Your task to perform on an android device: Open Yahoo.com Image 0: 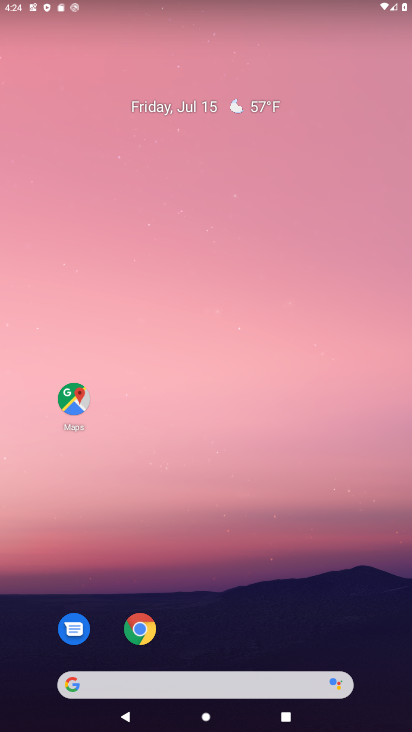
Step 0: press home button
Your task to perform on an android device: Open Yahoo.com Image 1: 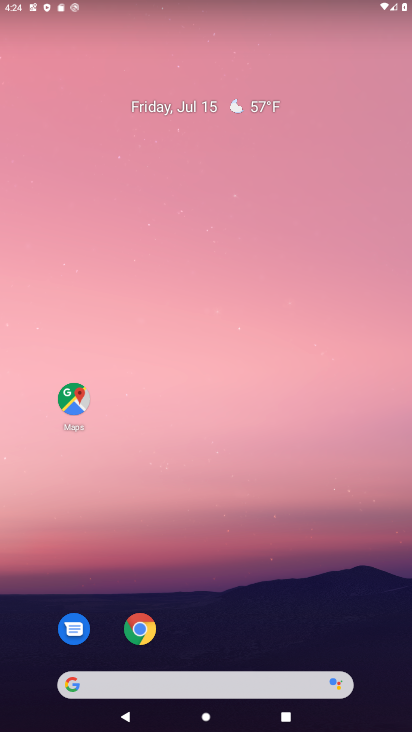
Step 1: click (67, 685)
Your task to perform on an android device: Open Yahoo.com Image 2: 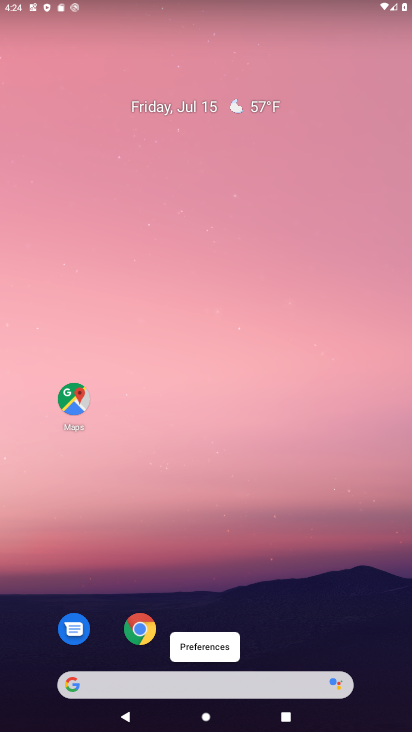
Step 2: click (67, 685)
Your task to perform on an android device: Open Yahoo.com Image 3: 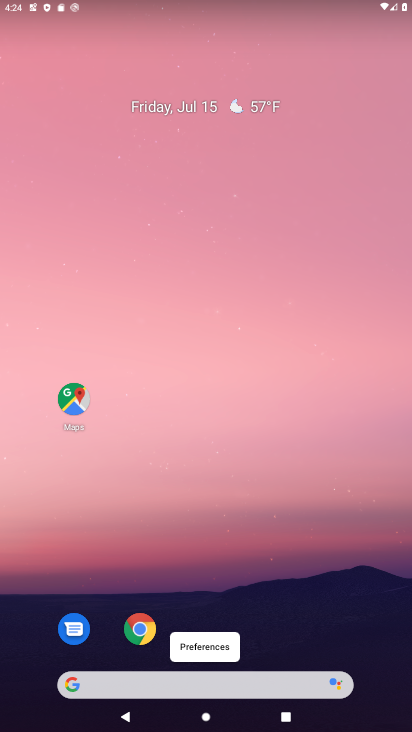
Step 3: click (67, 685)
Your task to perform on an android device: Open Yahoo.com Image 4: 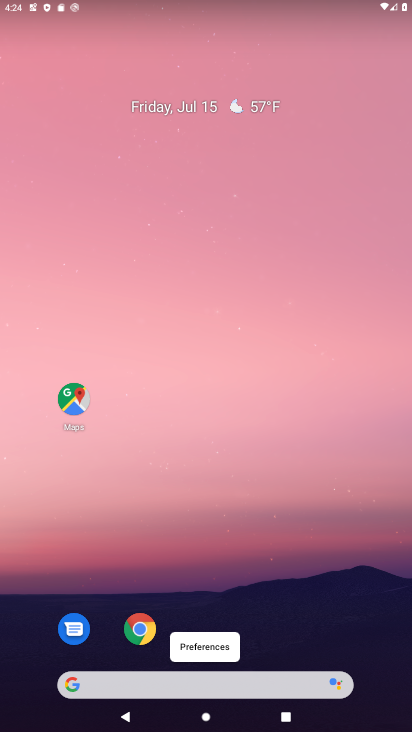
Step 4: click (70, 684)
Your task to perform on an android device: Open Yahoo.com Image 5: 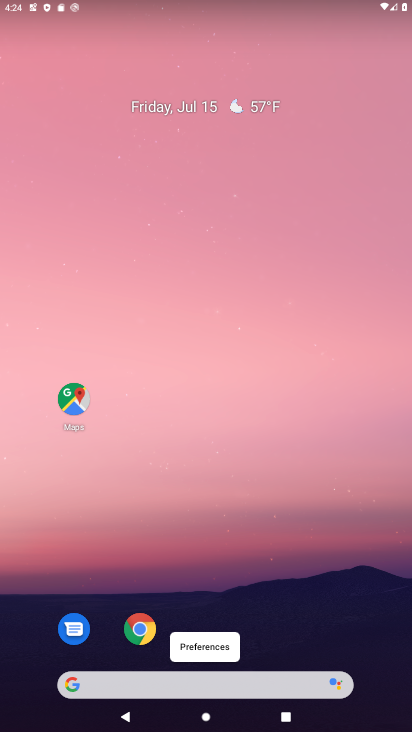
Step 5: drag from (262, 635) to (335, 2)
Your task to perform on an android device: Open Yahoo.com Image 6: 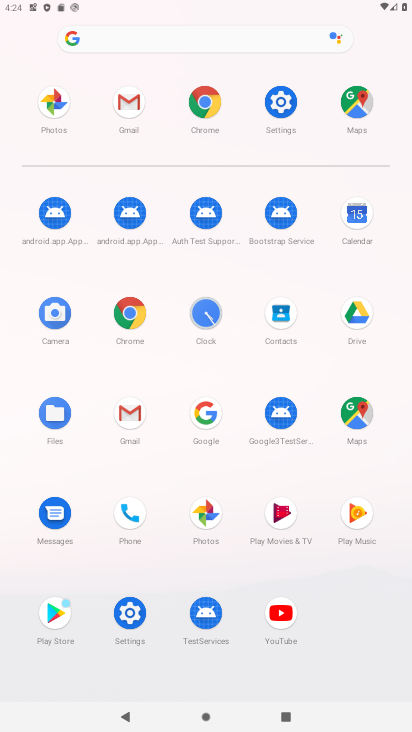
Step 6: click (211, 415)
Your task to perform on an android device: Open Yahoo.com Image 7: 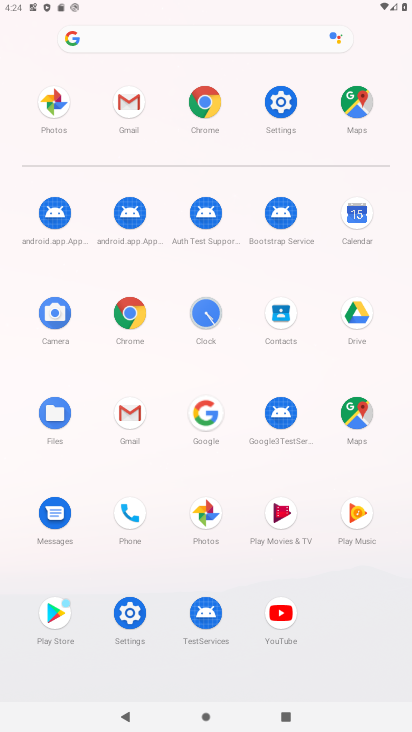
Step 7: click (212, 408)
Your task to perform on an android device: Open Yahoo.com Image 8: 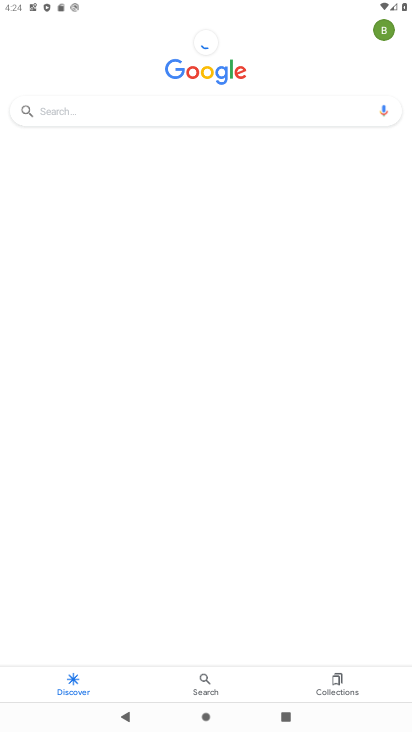
Step 8: click (110, 107)
Your task to perform on an android device: Open Yahoo.com Image 9: 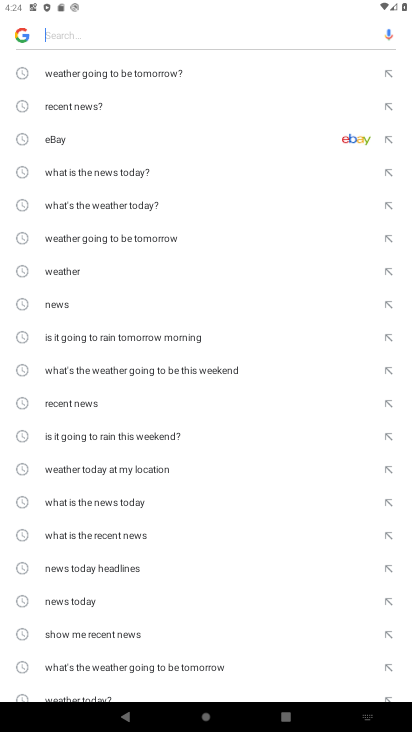
Step 9: type "Yahoo.com"
Your task to perform on an android device: Open Yahoo.com Image 10: 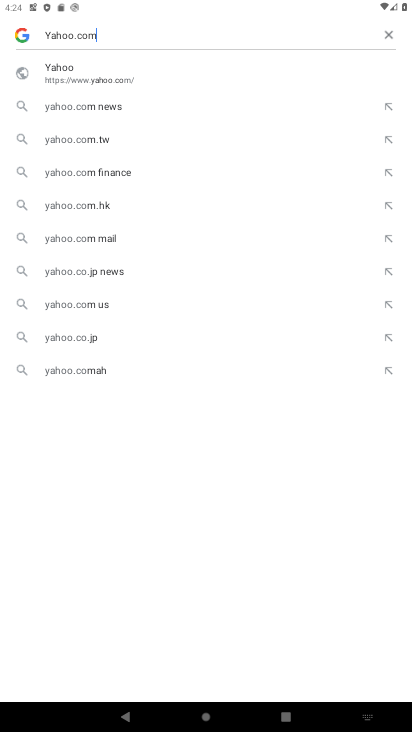
Step 10: press enter
Your task to perform on an android device: Open Yahoo.com Image 11: 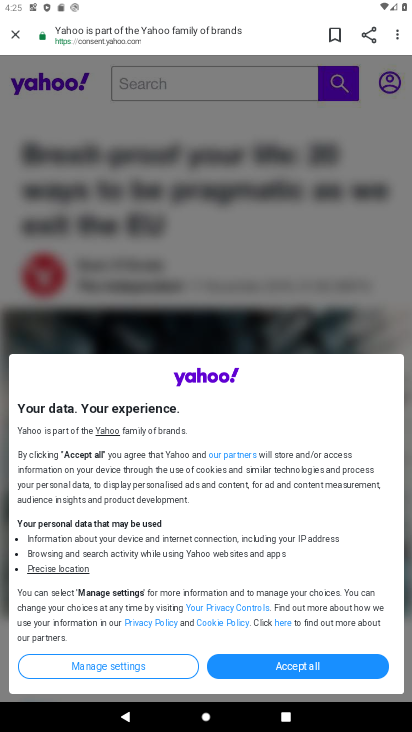
Step 11: click (332, 664)
Your task to perform on an android device: Open Yahoo.com Image 12: 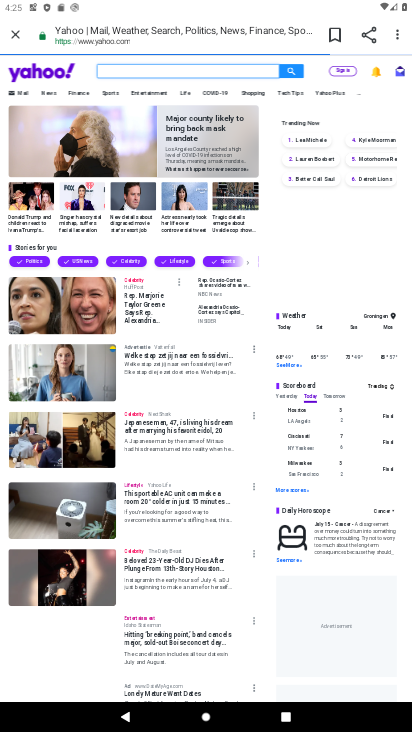
Step 12: task complete